Your task to perform on an android device: Go to notification settings Image 0: 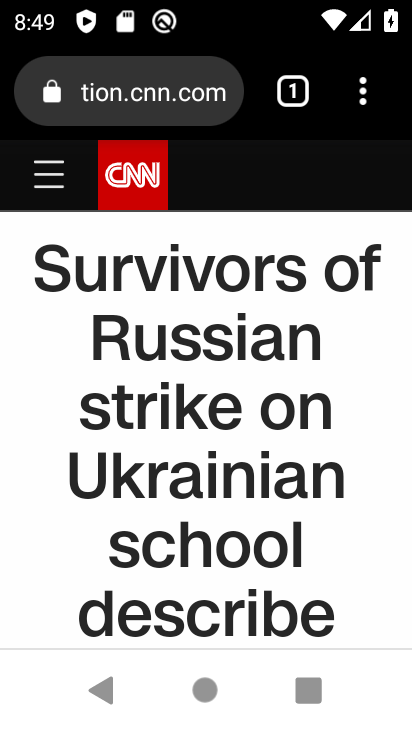
Step 0: press home button
Your task to perform on an android device: Go to notification settings Image 1: 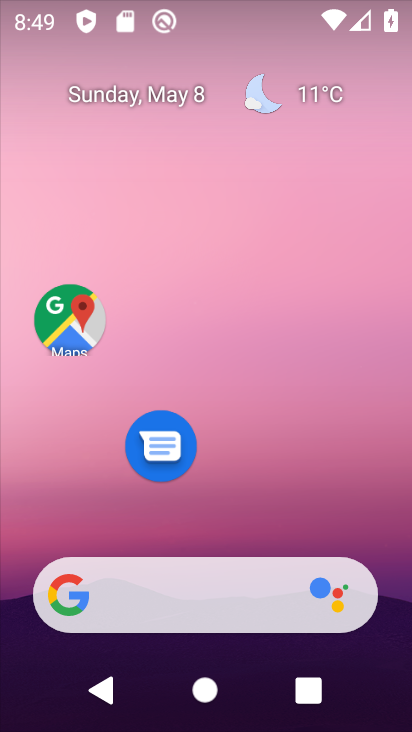
Step 1: drag from (294, 492) to (269, 92)
Your task to perform on an android device: Go to notification settings Image 2: 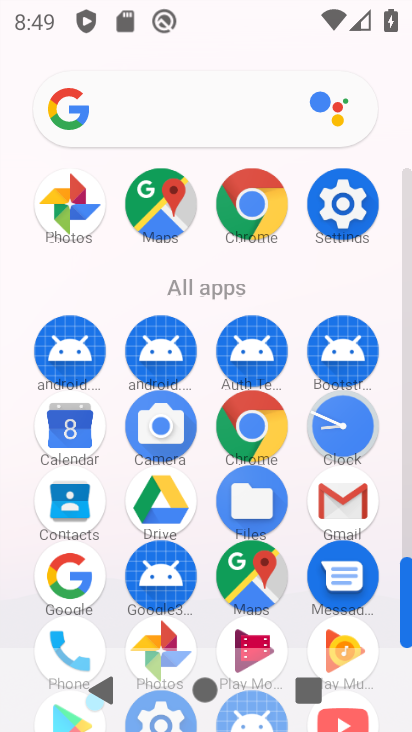
Step 2: click (359, 201)
Your task to perform on an android device: Go to notification settings Image 3: 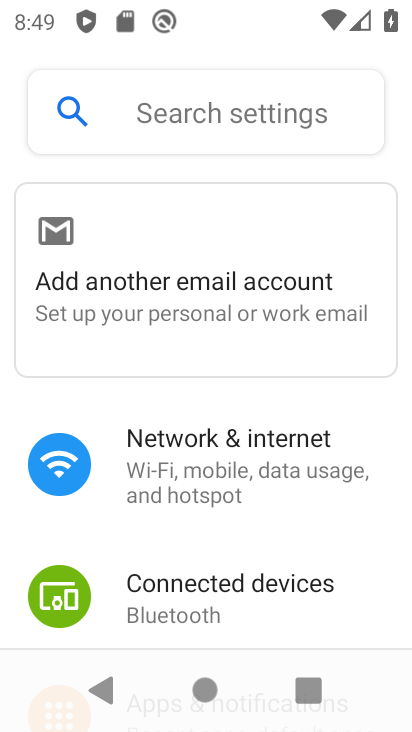
Step 3: drag from (385, 639) to (242, 179)
Your task to perform on an android device: Go to notification settings Image 4: 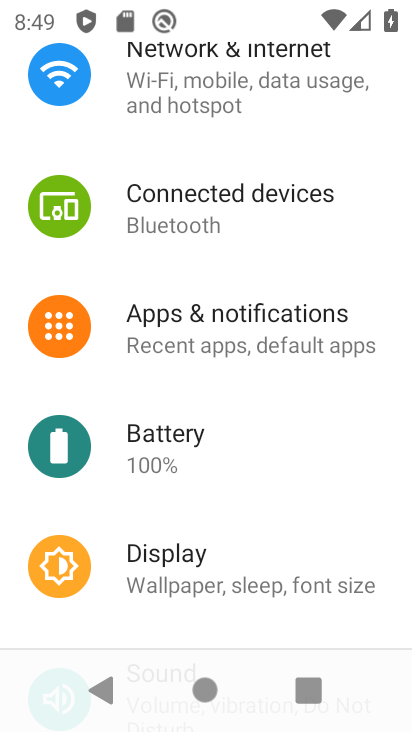
Step 4: click (249, 298)
Your task to perform on an android device: Go to notification settings Image 5: 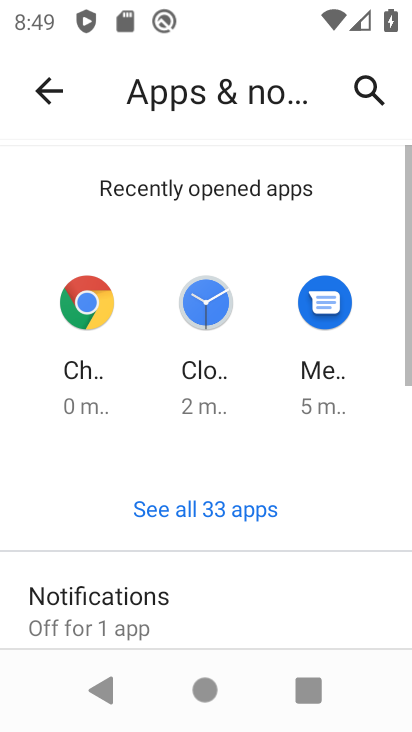
Step 5: task complete